Your task to perform on an android device: Go to sound settings Image 0: 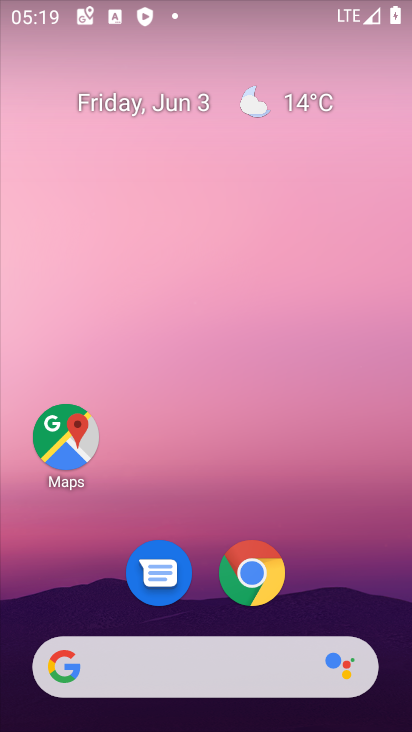
Step 0: drag from (354, 595) to (347, 180)
Your task to perform on an android device: Go to sound settings Image 1: 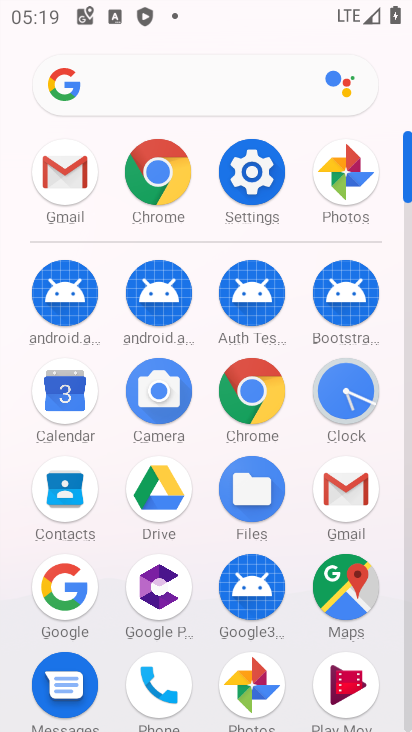
Step 1: click (245, 173)
Your task to perform on an android device: Go to sound settings Image 2: 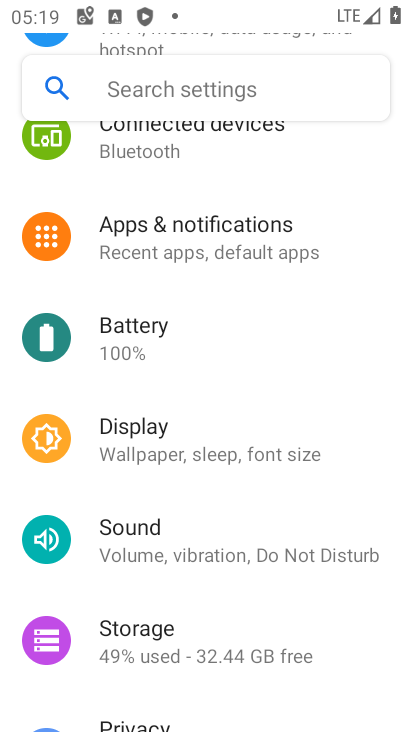
Step 2: click (218, 374)
Your task to perform on an android device: Go to sound settings Image 3: 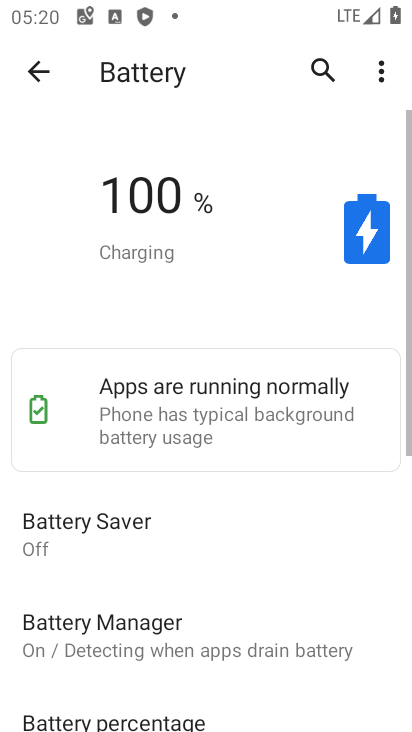
Step 3: press back button
Your task to perform on an android device: Go to sound settings Image 4: 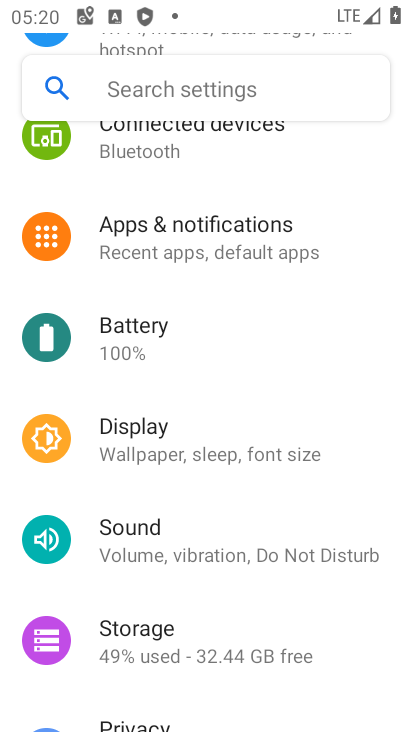
Step 4: click (195, 553)
Your task to perform on an android device: Go to sound settings Image 5: 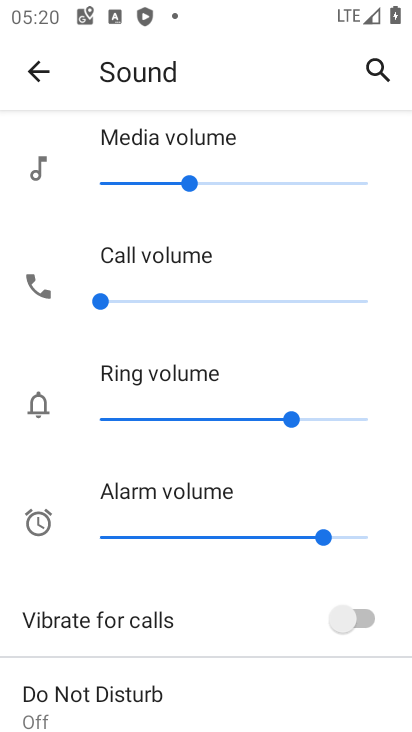
Step 5: task complete